Your task to perform on an android device: toggle improve location accuracy Image 0: 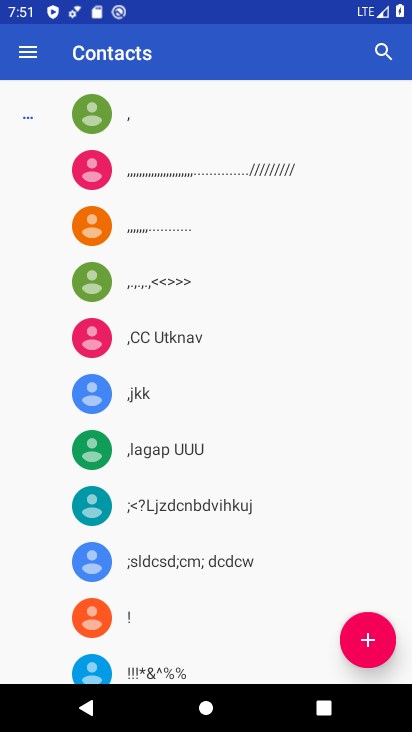
Step 0: press home button
Your task to perform on an android device: toggle improve location accuracy Image 1: 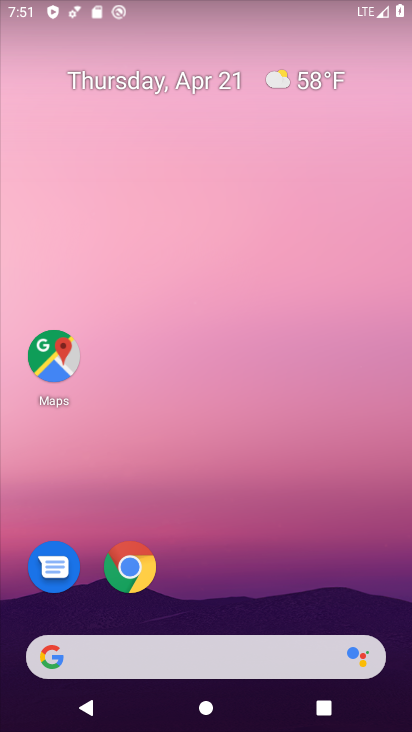
Step 1: drag from (220, 590) to (186, 38)
Your task to perform on an android device: toggle improve location accuracy Image 2: 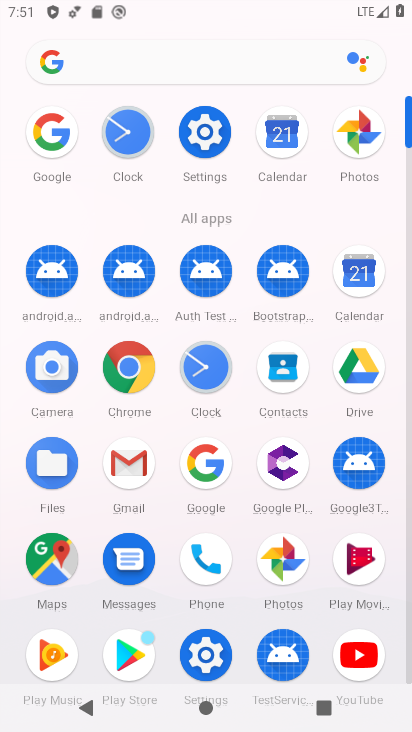
Step 2: click (203, 131)
Your task to perform on an android device: toggle improve location accuracy Image 3: 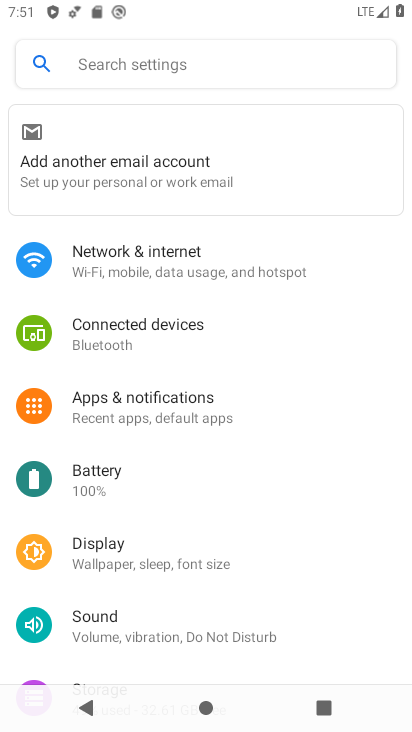
Step 3: drag from (193, 497) to (249, 351)
Your task to perform on an android device: toggle improve location accuracy Image 4: 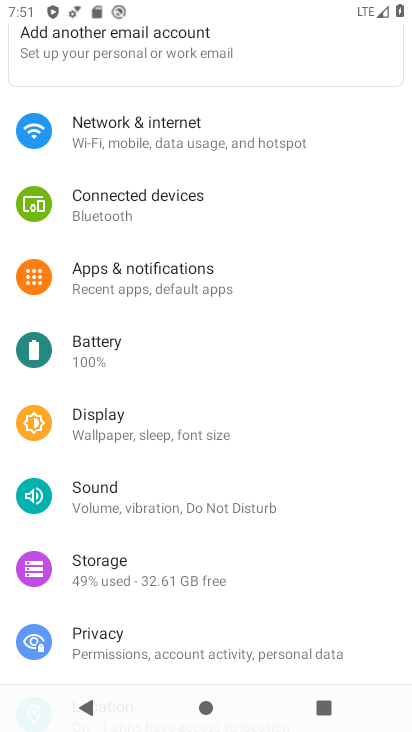
Step 4: drag from (194, 410) to (272, 296)
Your task to perform on an android device: toggle improve location accuracy Image 5: 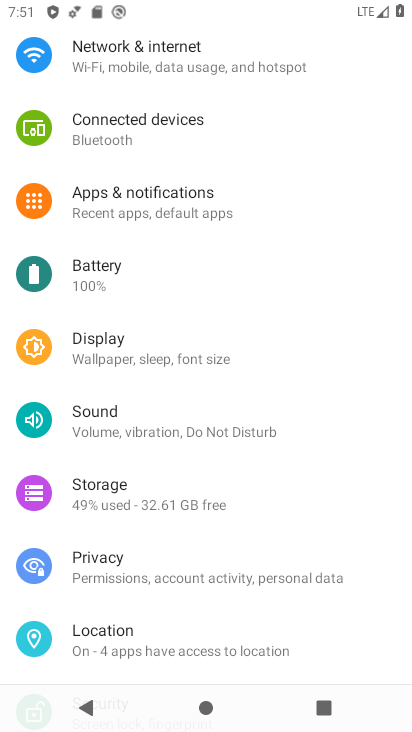
Step 5: drag from (269, 499) to (292, 422)
Your task to perform on an android device: toggle improve location accuracy Image 6: 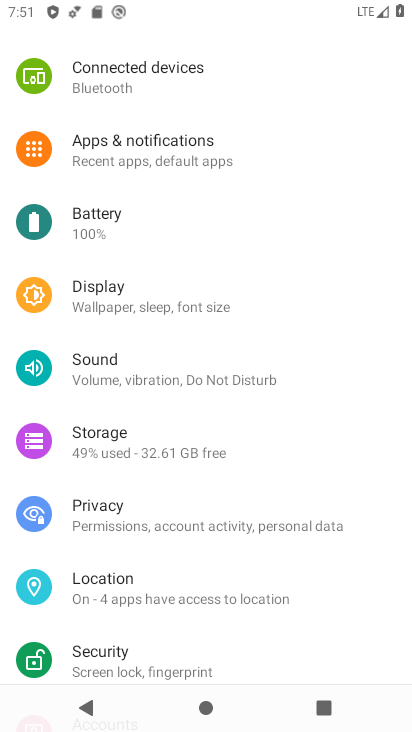
Step 6: click (157, 592)
Your task to perform on an android device: toggle improve location accuracy Image 7: 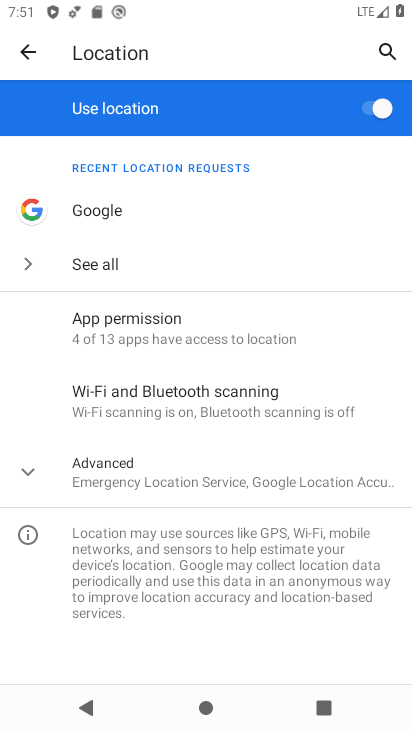
Step 7: click (192, 473)
Your task to perform on an android device: toggle improve location accuracy Image 8: 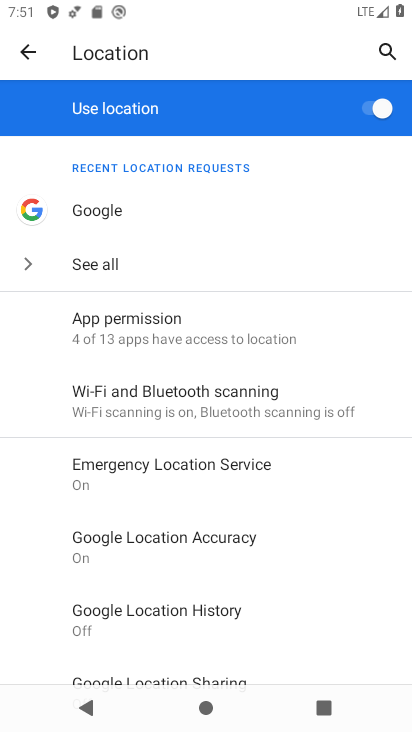
Step 8: click (178, 537)
Your task to perform on an android device: toggle improve location accuracy Image 9: 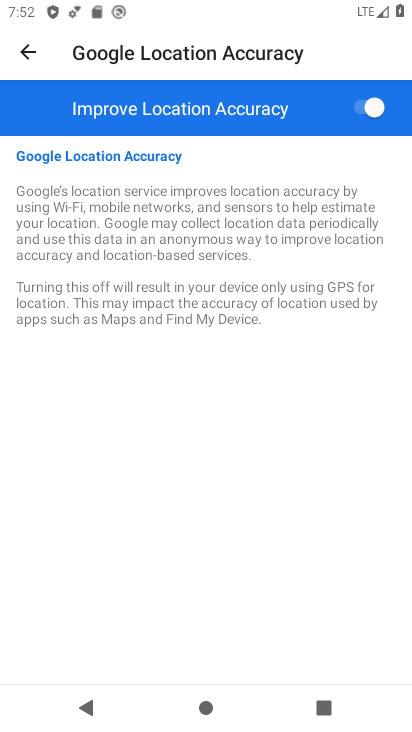
Step 9: click (372, 112)
Your task to perform on an android device: toggle improve location accuracy Image 10: 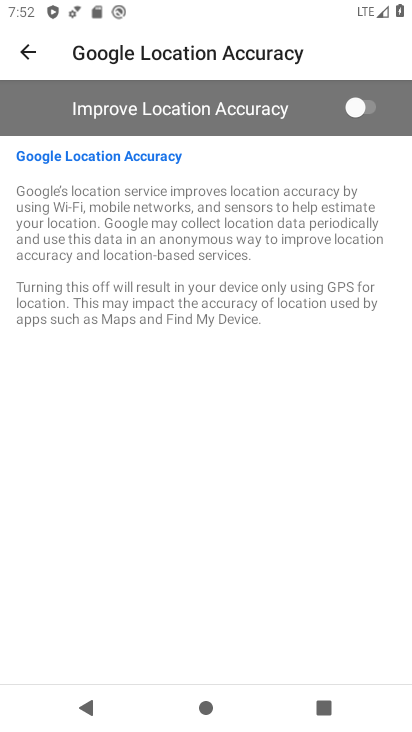
Step 10: task complete